Your task to perform on an android device: check storage Image 0: 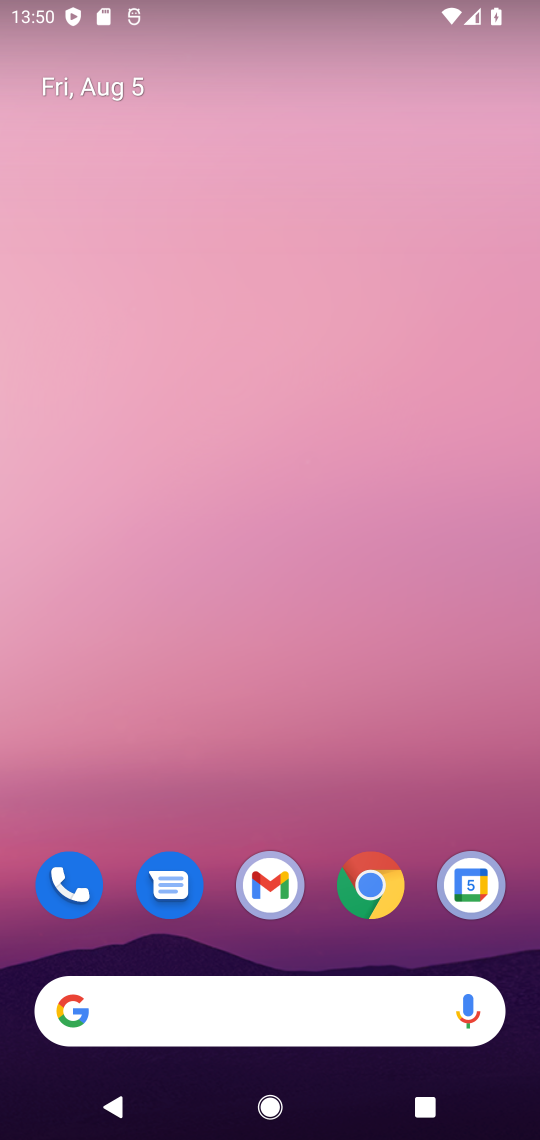
Step 0: drag from (285, 721) to (311, 259)
Your task to perform on an android device: check storage Image 1: 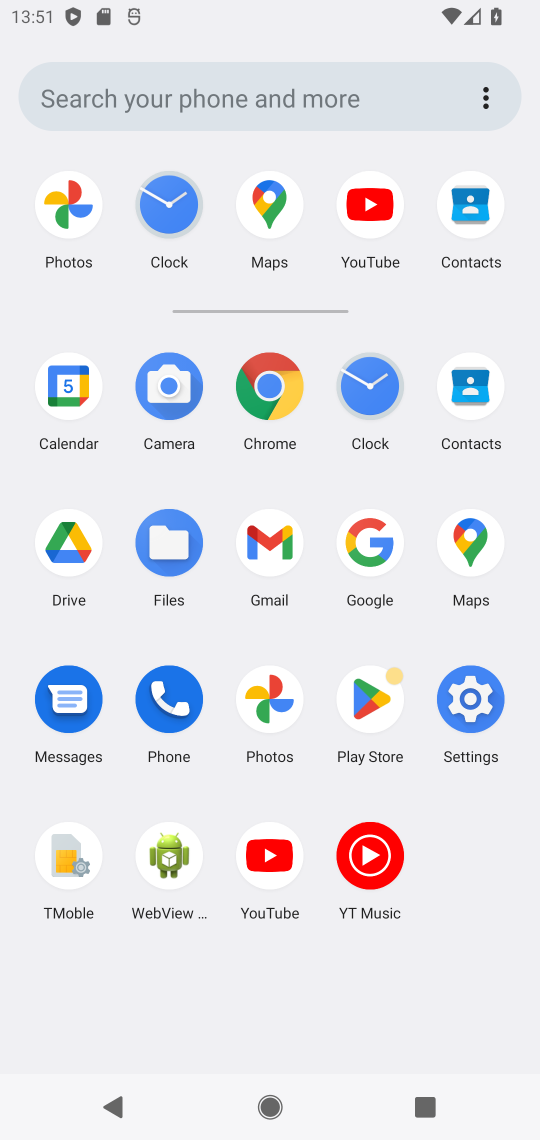
Step 1: click (467, 703)
Your task to perform on an android device: check storage Image 2: 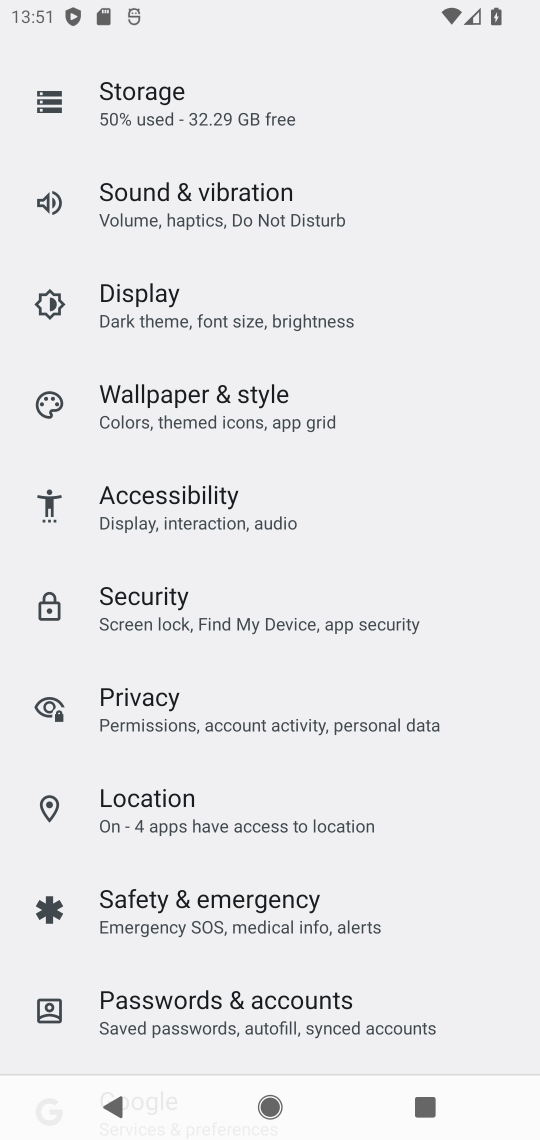
Step 2: click (175, 103)
Your task to perform on an android device: check storage Image 3: 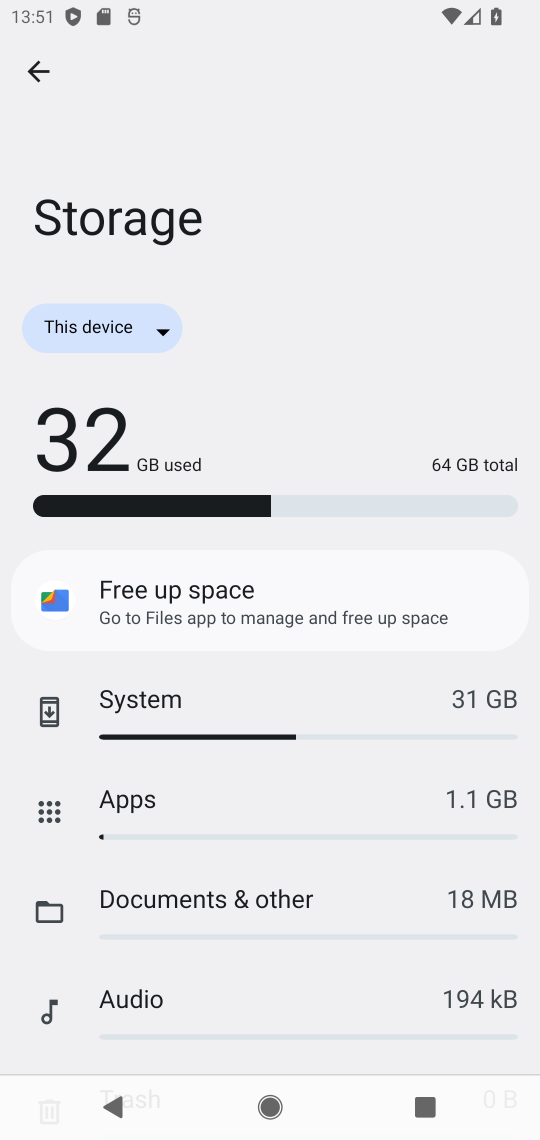
Step 3: task complete